Your task to perform on an android device: toggle pop-ups in chrome Image 0: 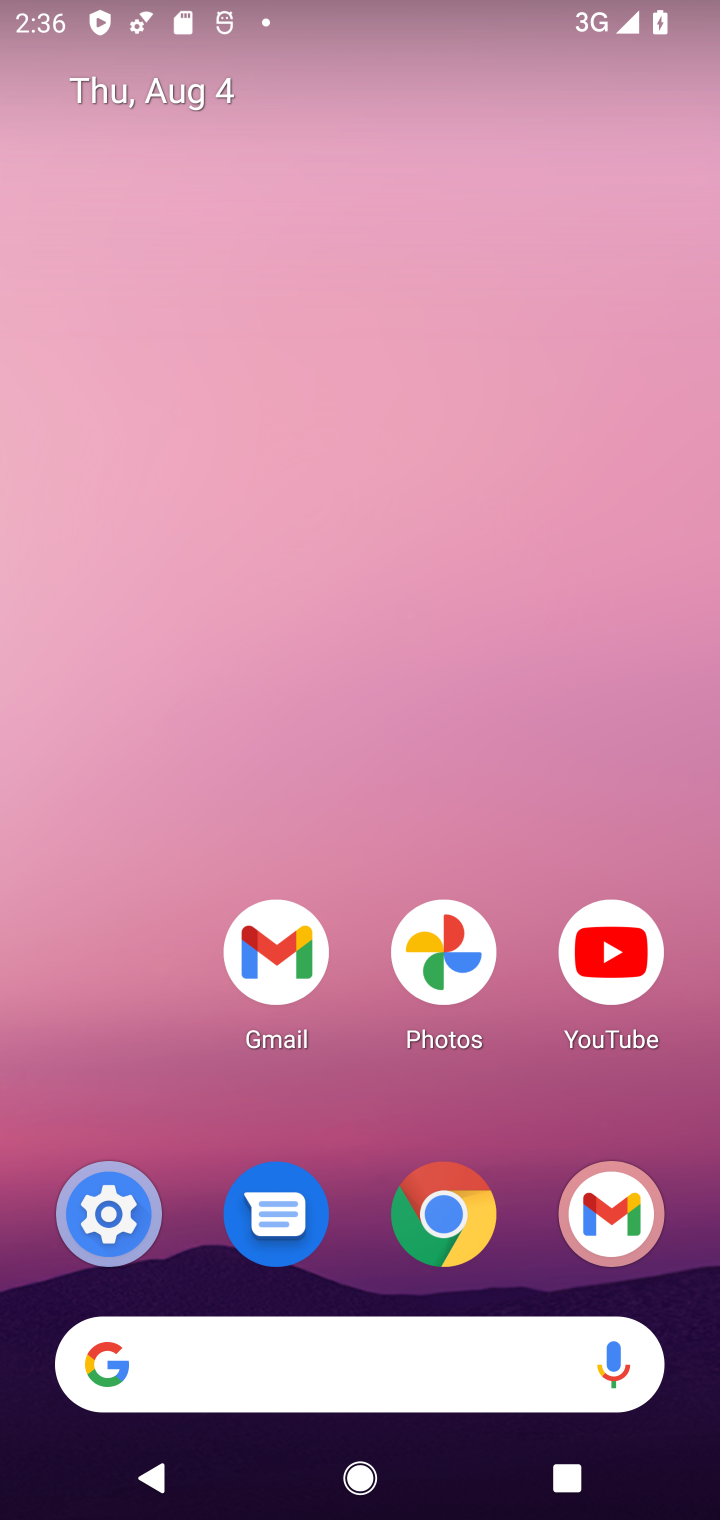
Step 0: drag from (146, 1088) to (83, 3)
Your task to perform on an android device: toggle pop-ups in chrome Image 1: 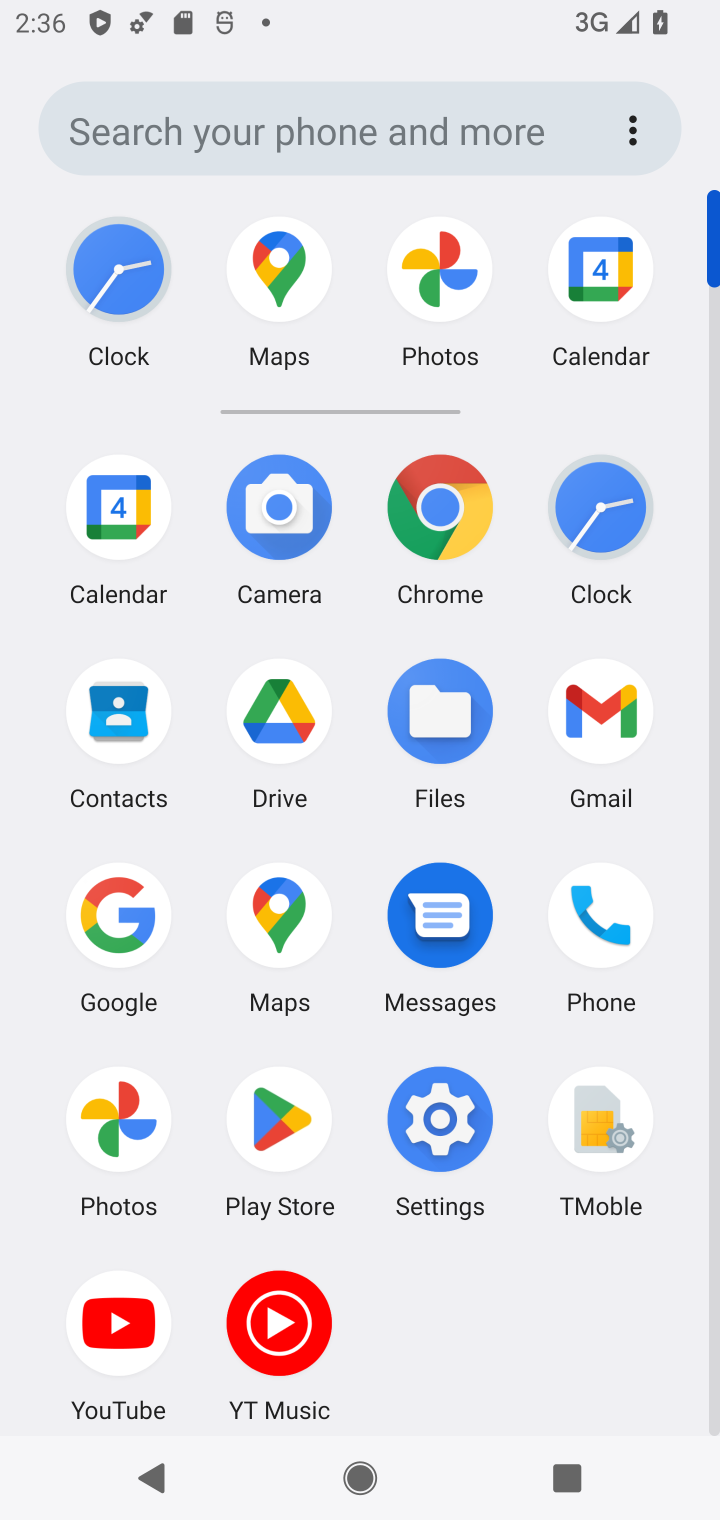
Step 1: click (438, 522)
Your task to perform on an android device: toggle pop-ups in chrome Image 2: 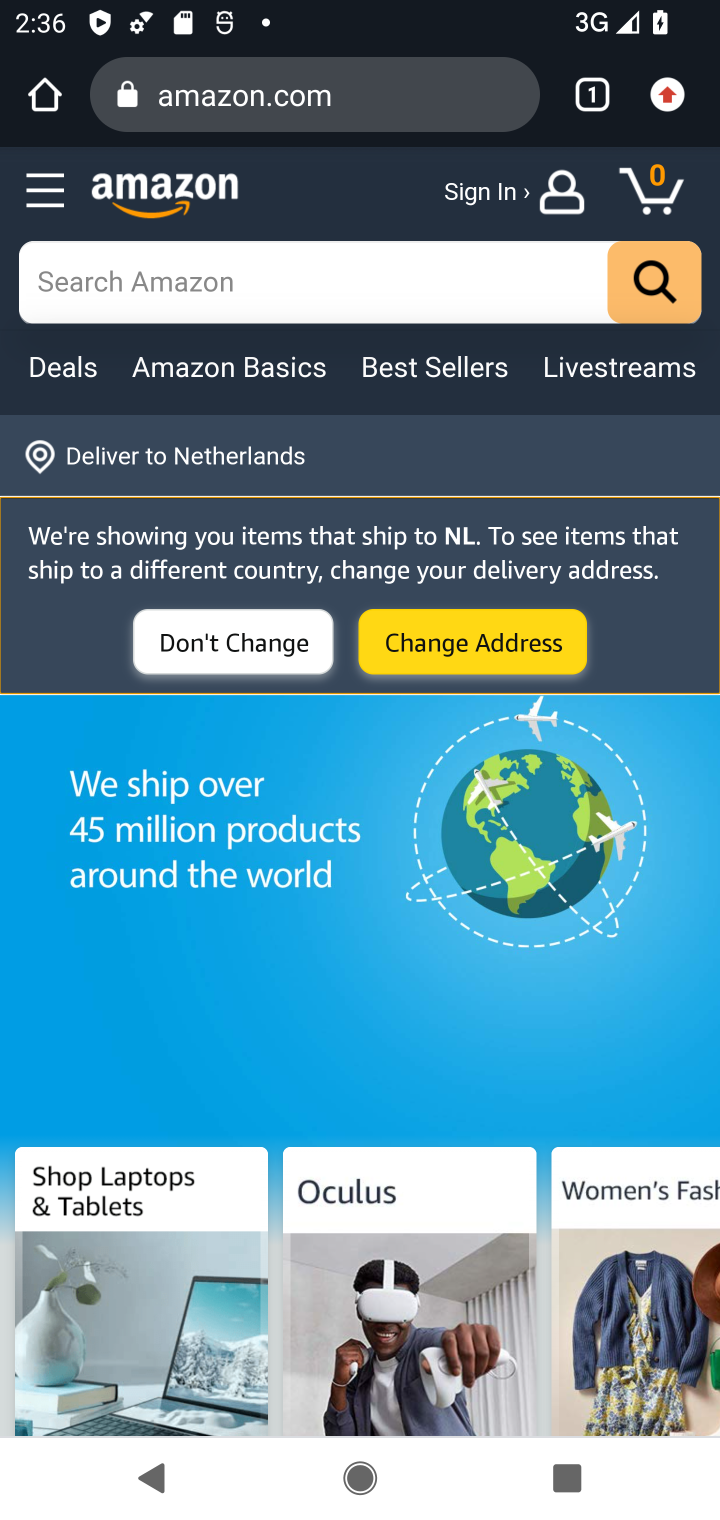
Step 2: press back button
Your task to perform on an android device: toggle pop-ups in chrome Image 3: 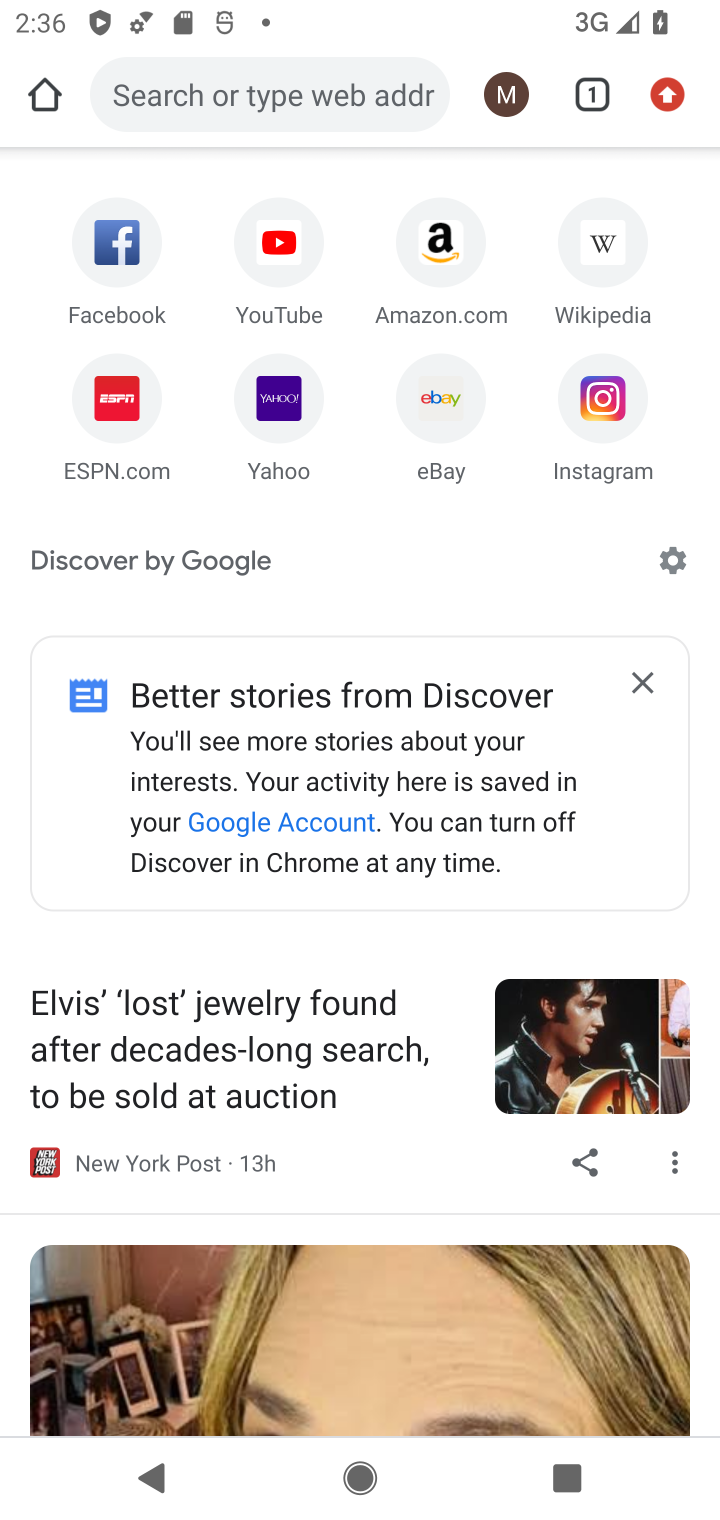
Step 3: click (669, 85)
Your task to perform on an android device: toggle pop-ups in chrome Image 4: 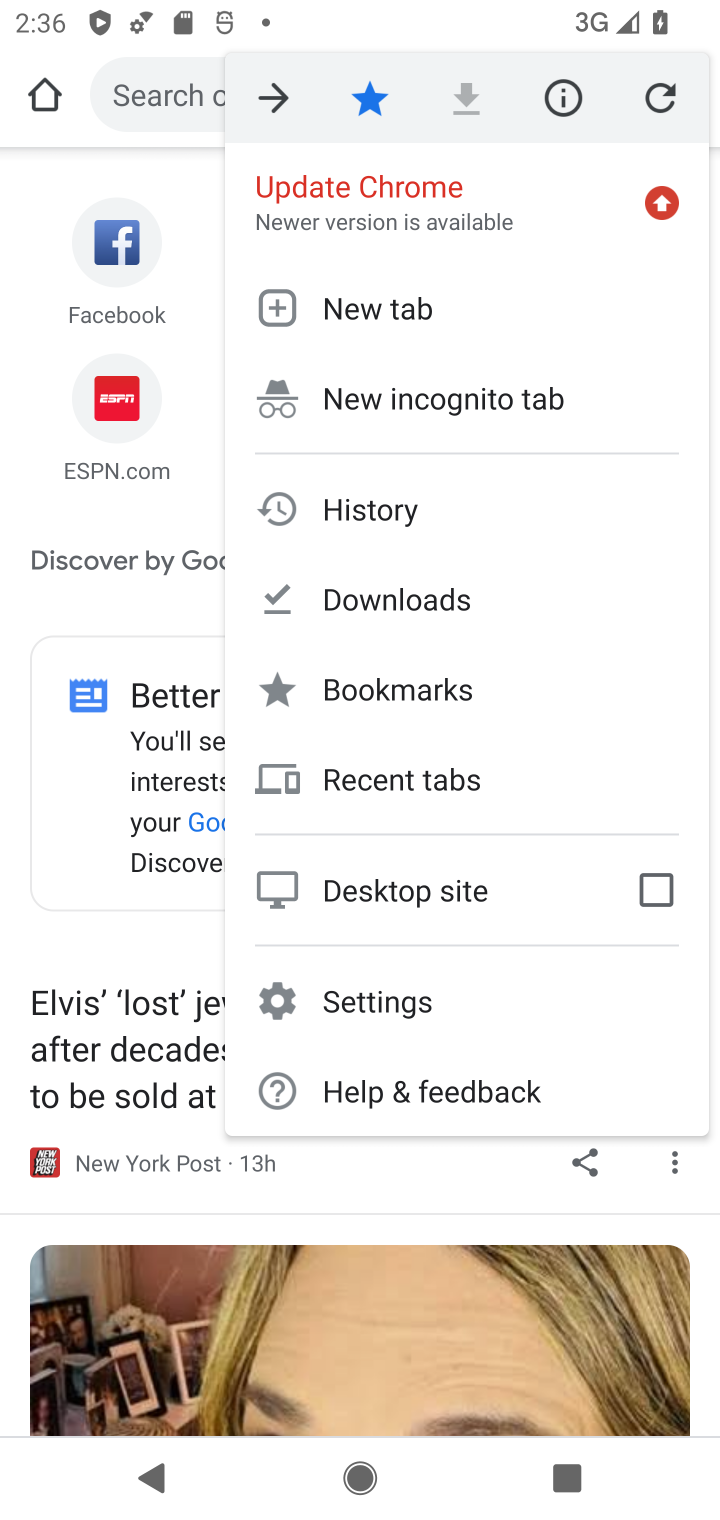
Step 4: click (399, 1000)
Your task to perform on an android device: toggle pop-ups in chrome Image 5: 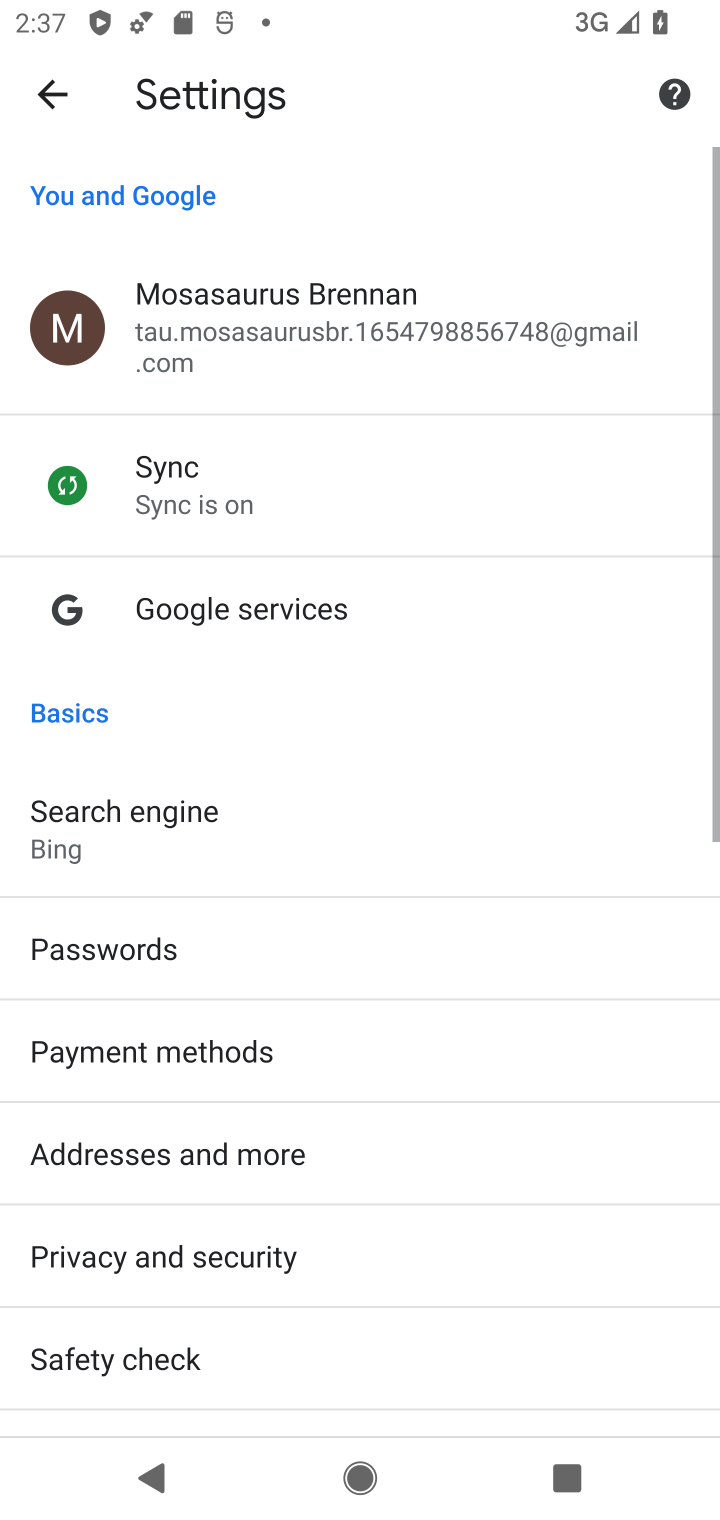
Step 5: drag from (280, 1301) to (94, 607)
Your task to perform on an android device: toggle pop-ups in chrome Image 6: 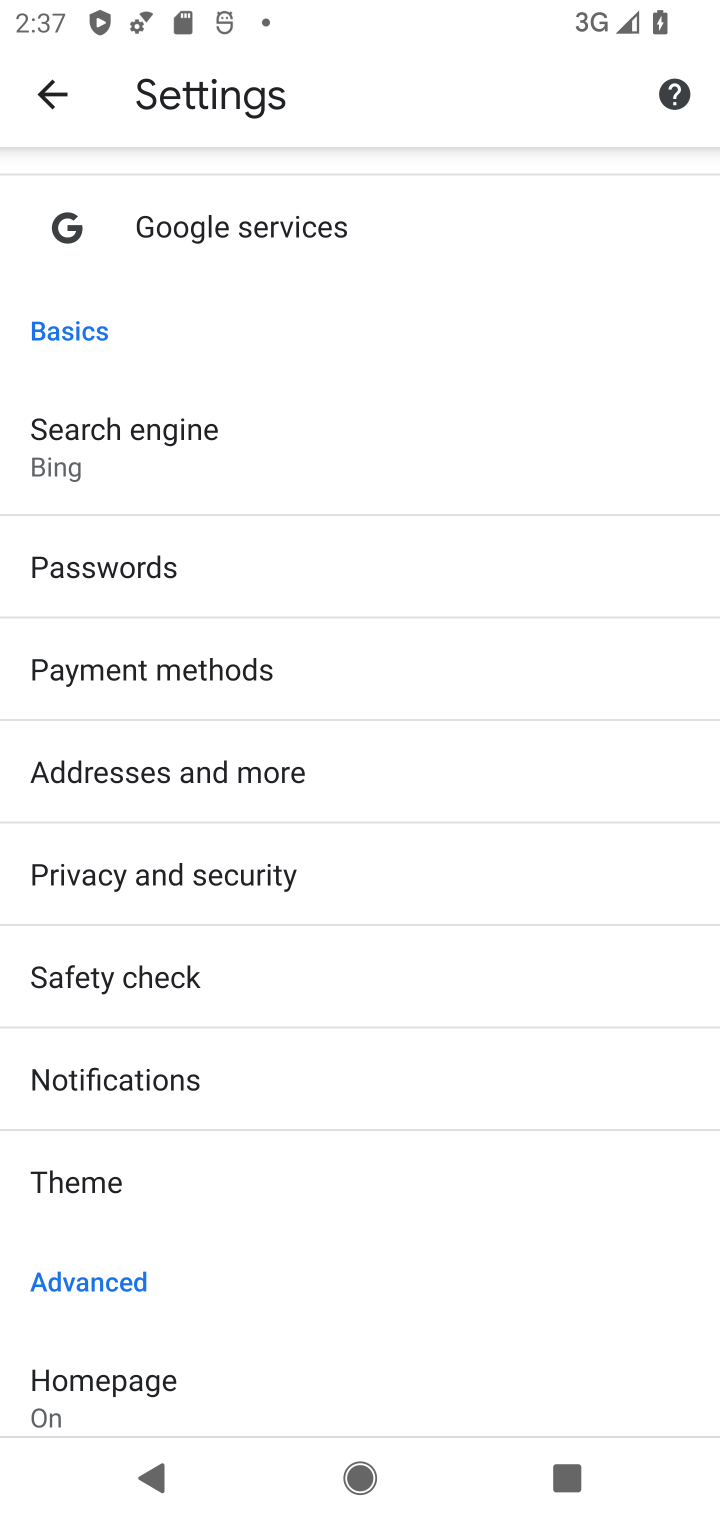
Step 6: drag from (294, 1147) to (131, 188)
Your task to perform on an android device: toggle pop-ups in chrome Image 7: 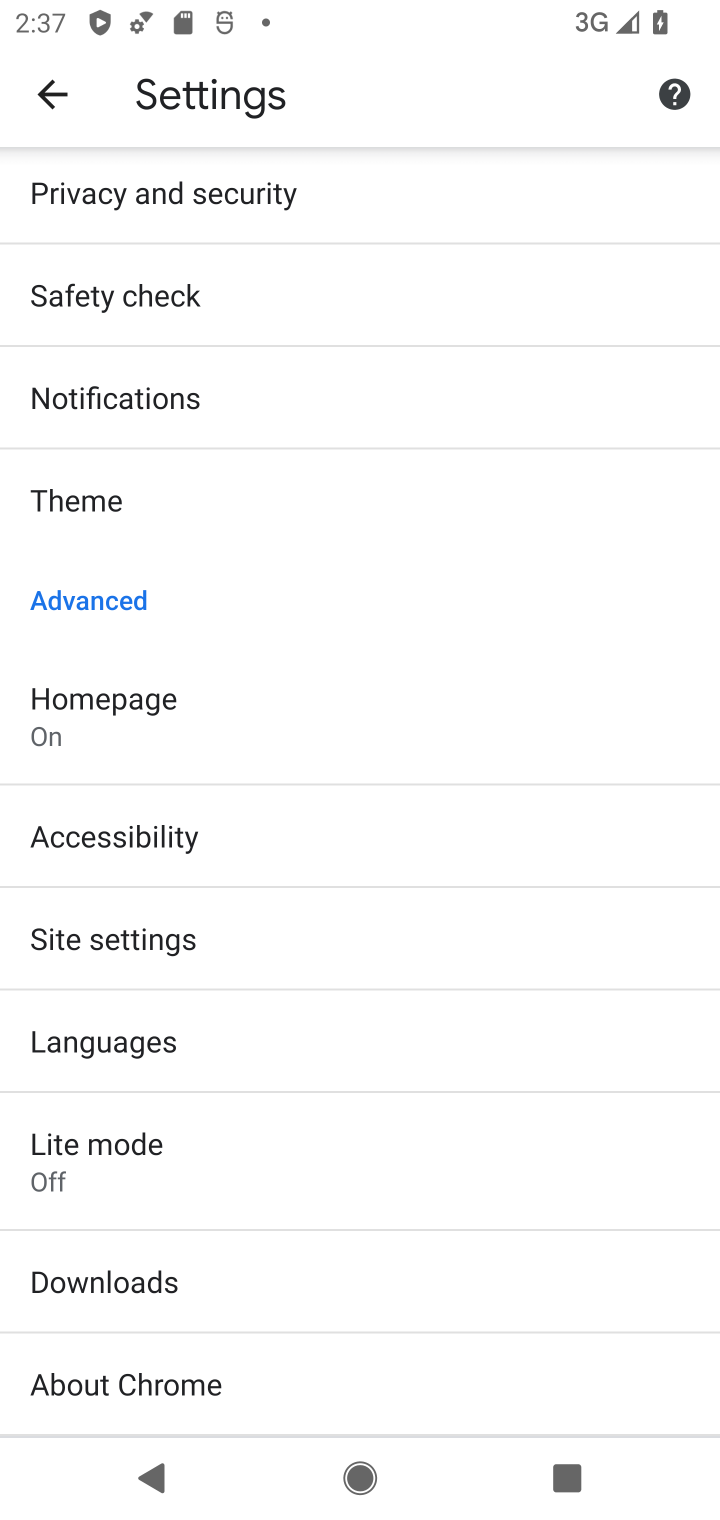
Step 7: click (232, 964)
Your task to perform on an android device: toggle pop-ups in chrome Image 8: 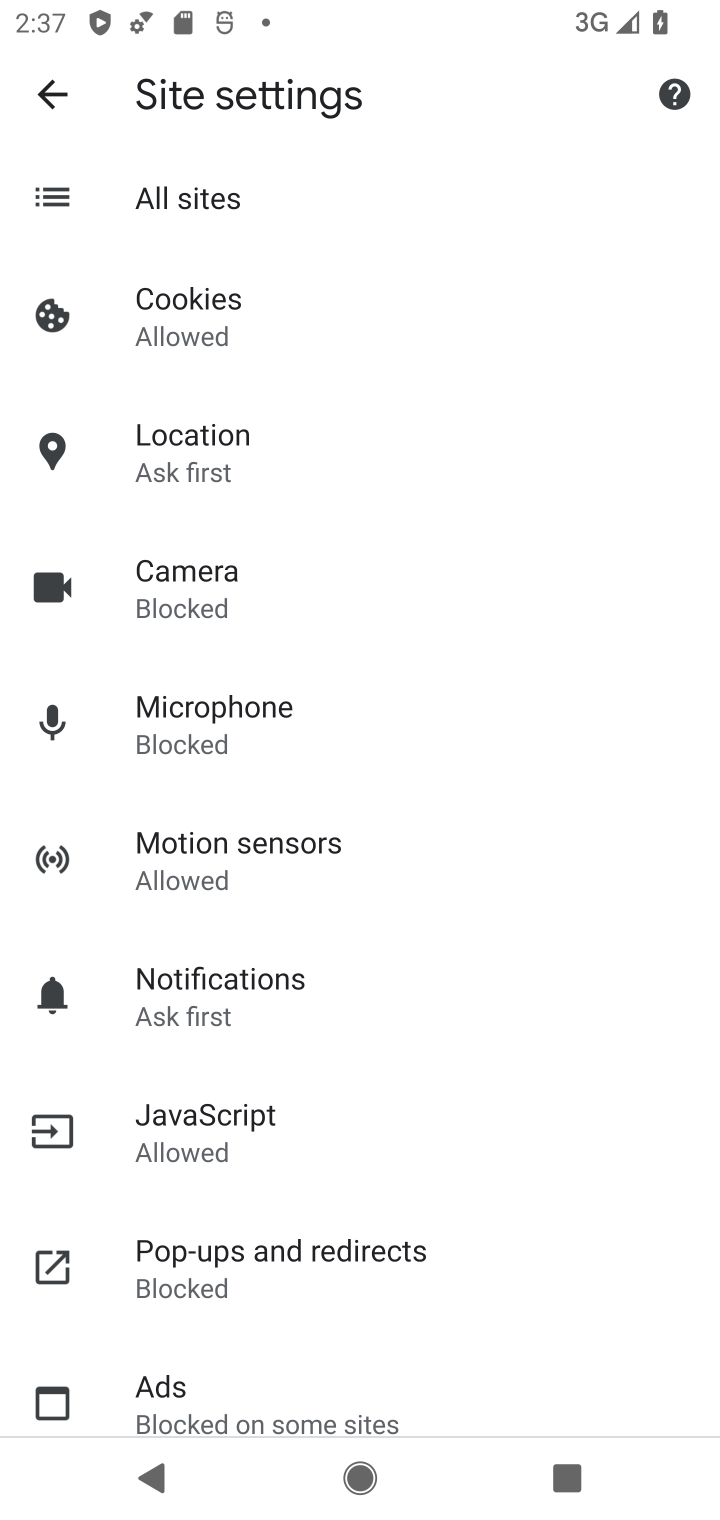
Step 8: click (302, 1263)
Your task to perform on an android device: toggle pop-ups in chrome Image 9: 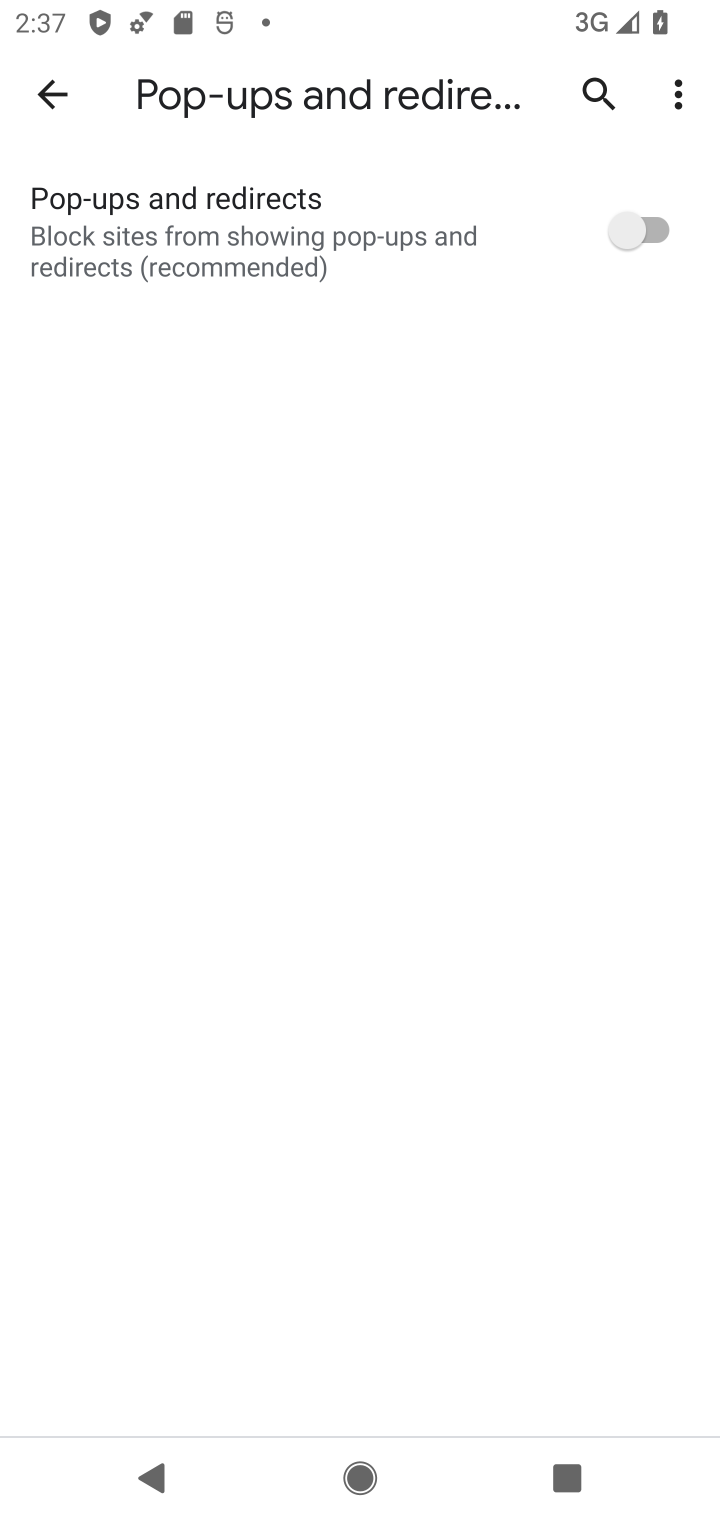
Step 9: click (600, 222)
Your task to perform on an android device: toggle pop-ups in chrome Image 10: 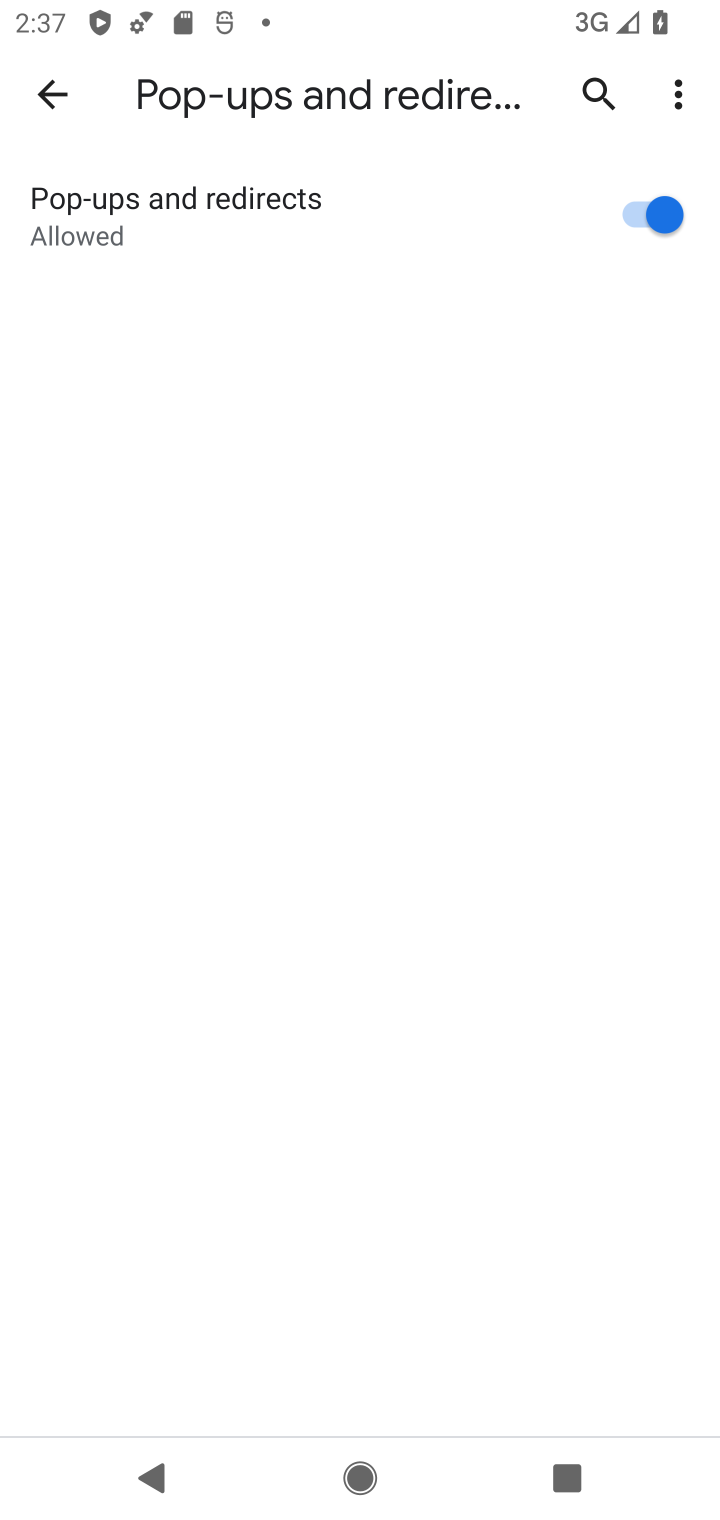
Step 10: task complete